Your task to perform on an android device: turn on data saver in the chrome app Image 0: 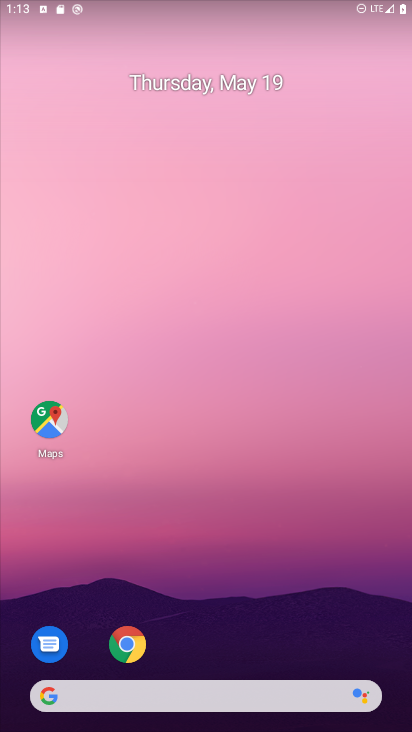
Step 0: drag from (304, 632) to (285, 107)
Your task to perform on an android device: turn on data saver in the chrome app Image 1: 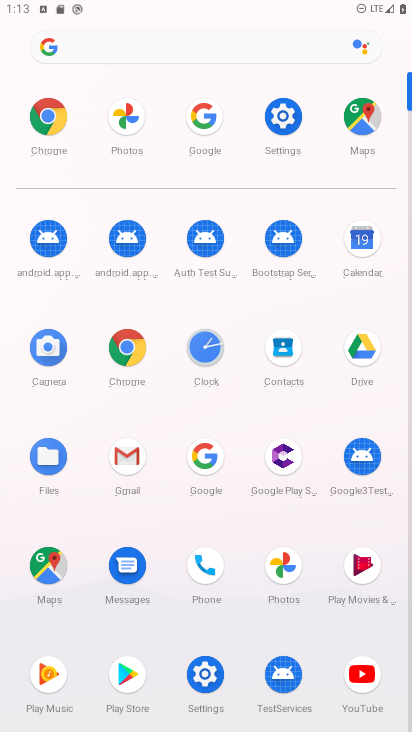
Step 1: click (29, 131)
Your task to perform on an android device: turn on data saver in the chrome app Image 2: 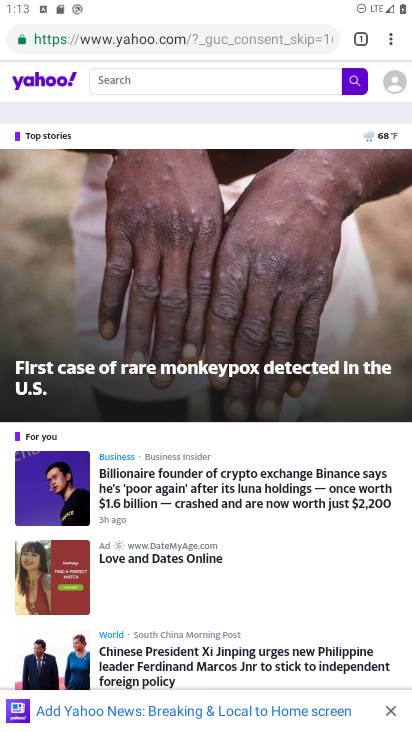
Step 2: press back button
Your task to perform on an android device: turn on data saver in the chrome app Image 3: 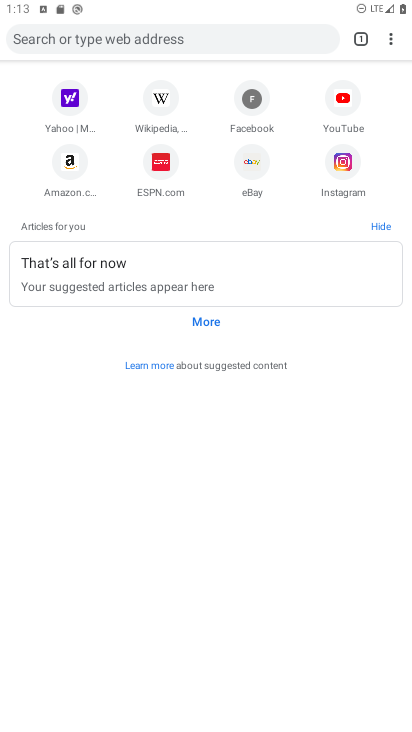
Step 3: click (386, 34)
Your task to perform on an android device: turn on data saver in the chrome app Image 4: 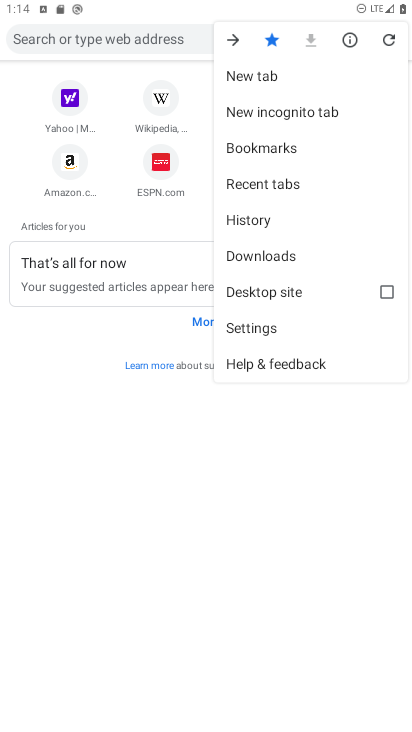
Step 4: click (275, 326)
Your task to perform on an android device: turn on data saver in the chrome app Image 5: 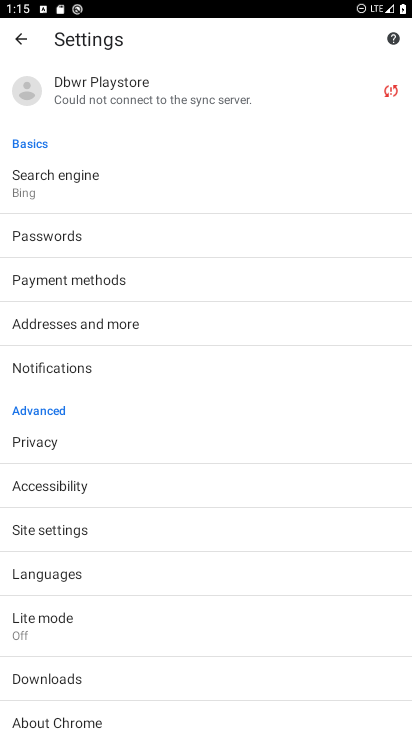
Step 5: click (127, 636)
Your task to perform on an android device: turn on data saver in the chrome app Image 6: 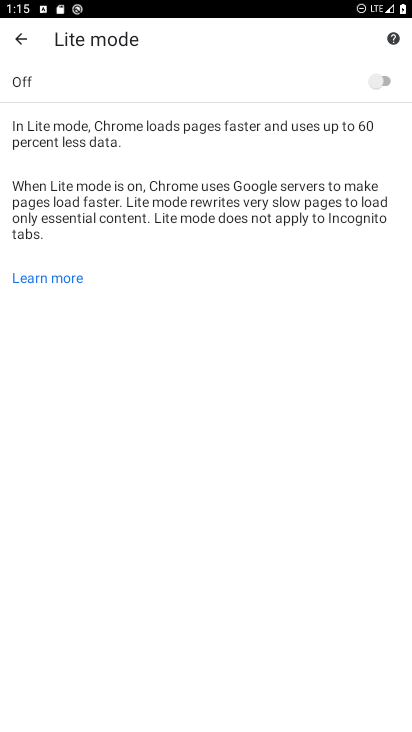
Step 6: click (378, 86)
Your task to perform on an android device: turn on data saver in the chrome app Image 7: 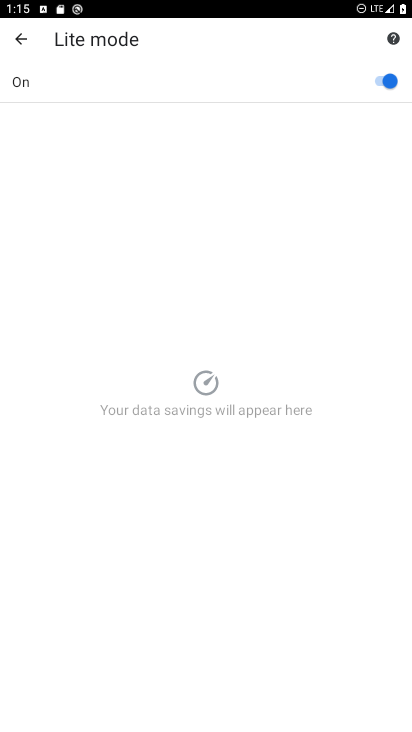
Step 7: task complete